Your task to perform on an android device: Go to CNN.com Image 0: 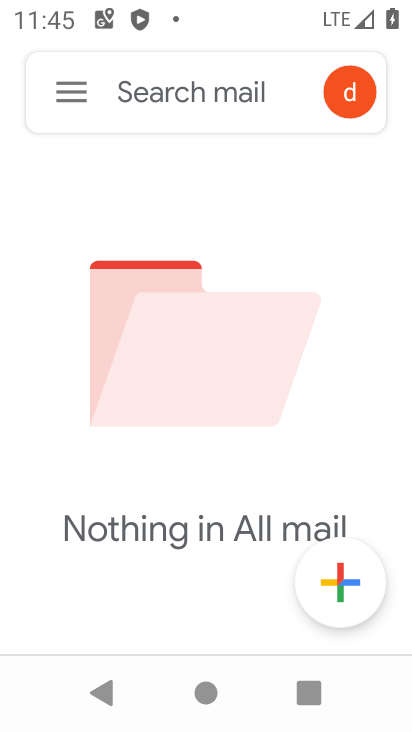
Step 0: press home button
Your task to perform on an android device: Go to CNN.com Image 1: 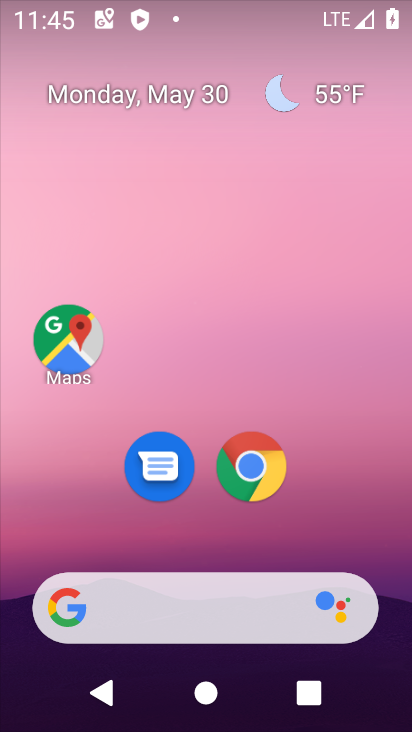
Step 1: click (254, 459)
Your task to perform on an android device: Go to CNN.com Image 2: 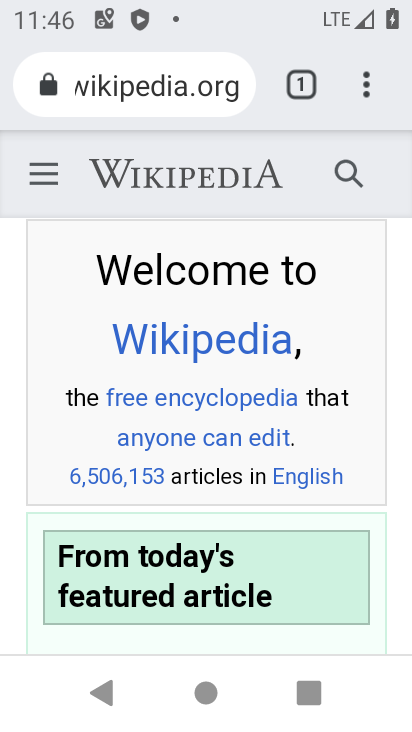
Step 2: click (226, 97)
Your task to perform on an android device: Go to CNN.com Image 3: 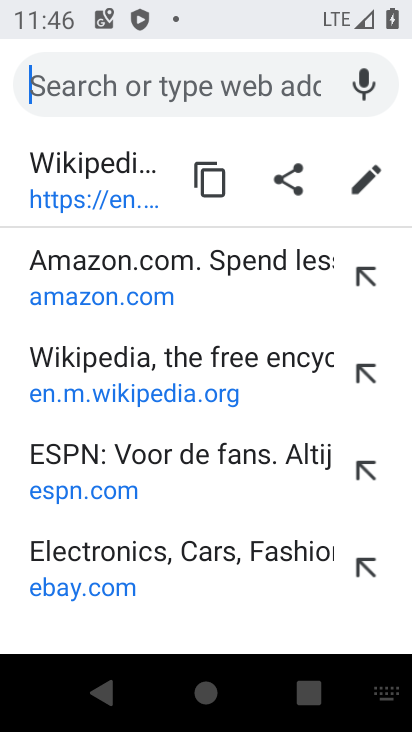
Step 3: type "cnn.com"
Your task to perform on an android device: Go to CNN.com Image 4: 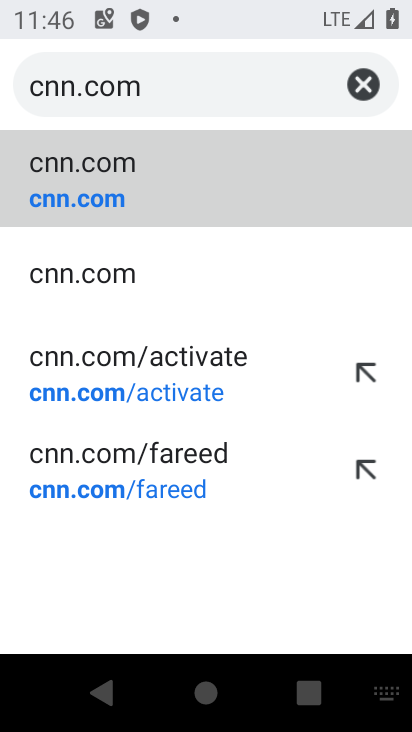
Step 4: click (103, 208)
Your task to perform on an android device: Go to CNN.com Image 5: 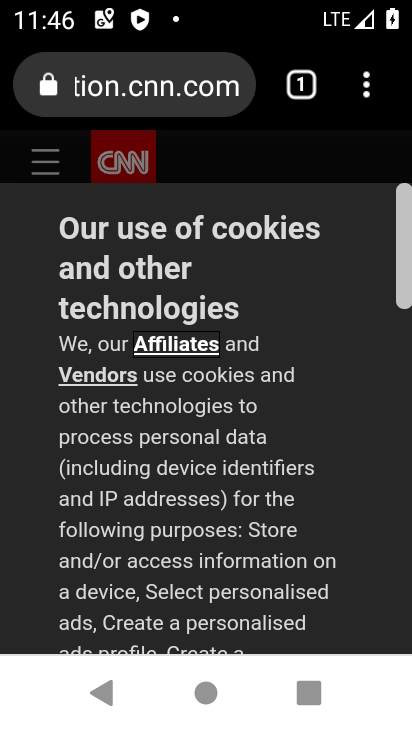
Step 5: task complete